Your task to perform on an android device: Open Wikipedia Image 0: 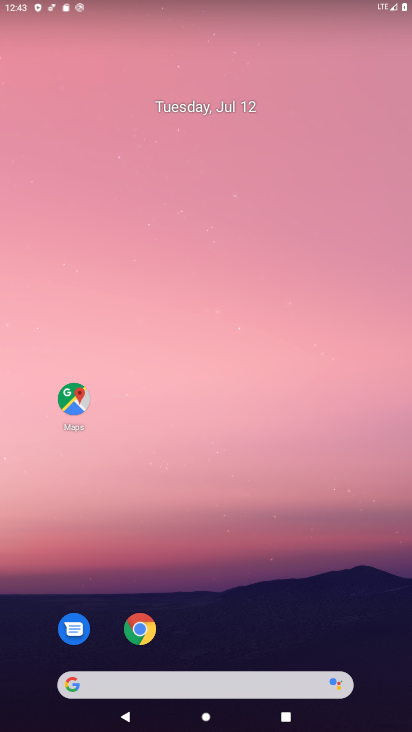
Step 0: drag from (331, 415) to (340, 35)
Your task to perform on an android device: Open Wikipedia Image 1: 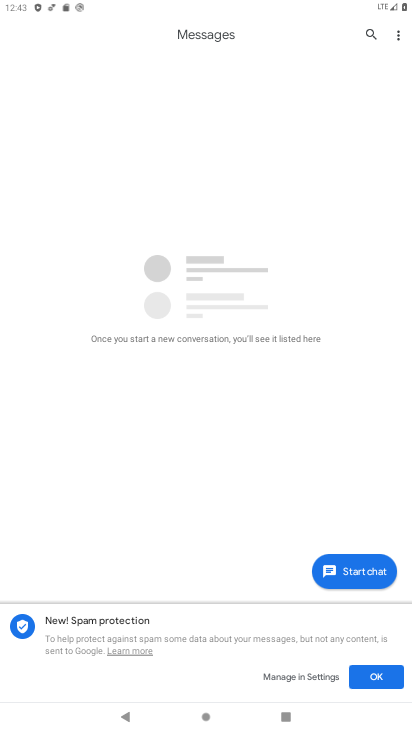
Step 1: press home button
Your task to perform on an android device: Open Wikipedia Image 2: 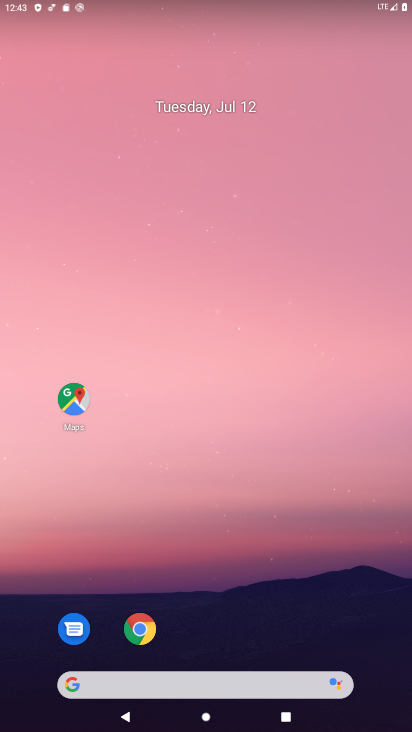
Step 2: drag from (225, 678) to (354, 129)
Your task to perform on an android device: Open Wikipedia Image 3: 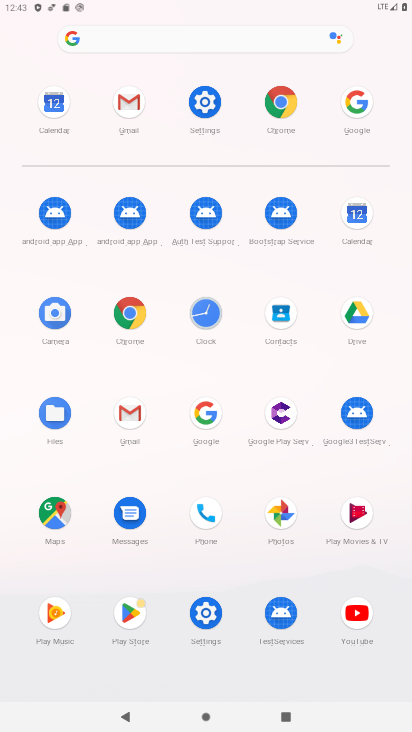
Step 3: click (133, 310)
Your task to perform on an android device: Open Wikipedia Image 4: 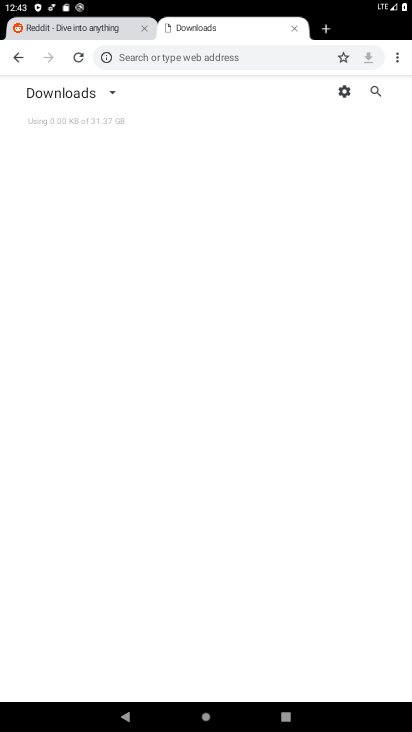
Step 4: drag from (400, 58) to (307, 56)
Your task to perform on an android device: Open Wikipedia Image 5: 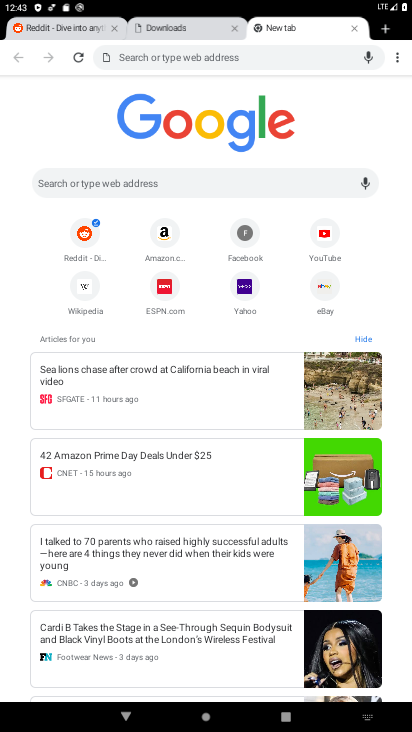
Step 5: click (88, 285)
Your task to perform on an android device: Open Wikipedia Image 6: 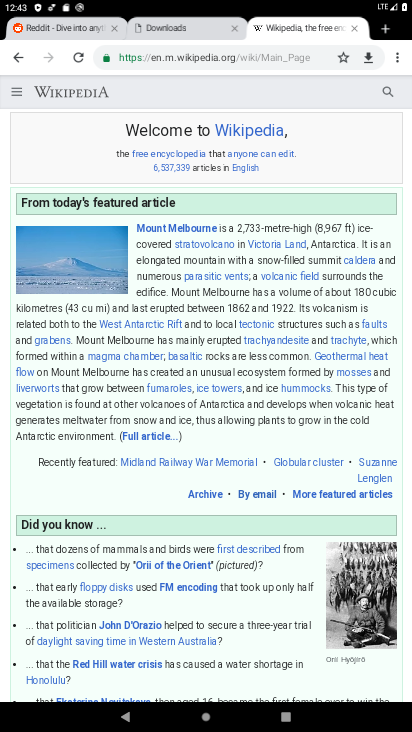
Step 6: task complete